Your task to perform on an android device: turn off airplane mode Image 0: 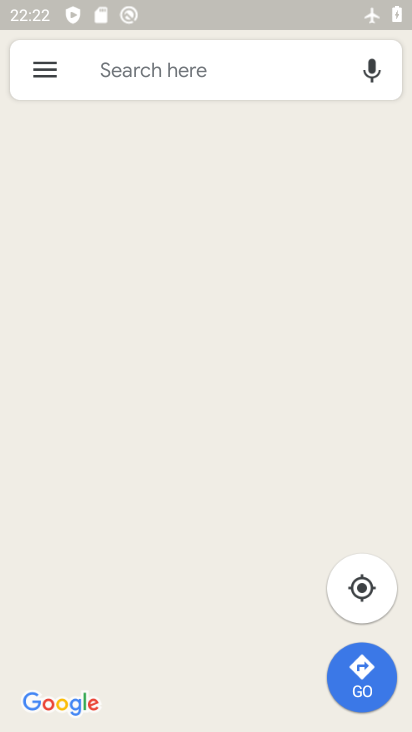
Step 0: press home button
Your task to perform on an android device: turn off airplane mode Image 1: 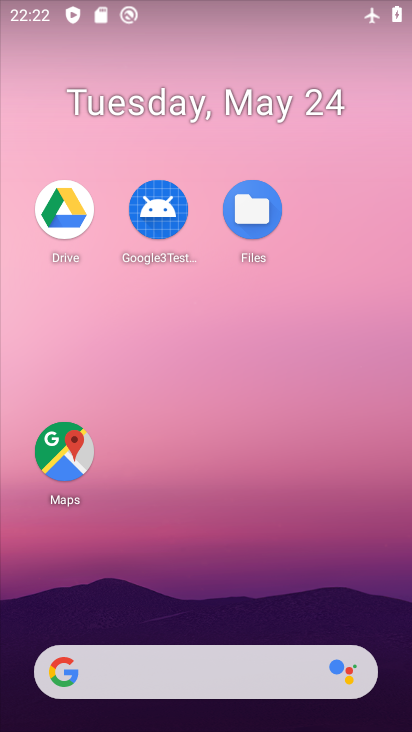
Step 1: drag from (177, 618) to (189, 139)
Your task to perform on an android device: turn off airplane mode Image 2: 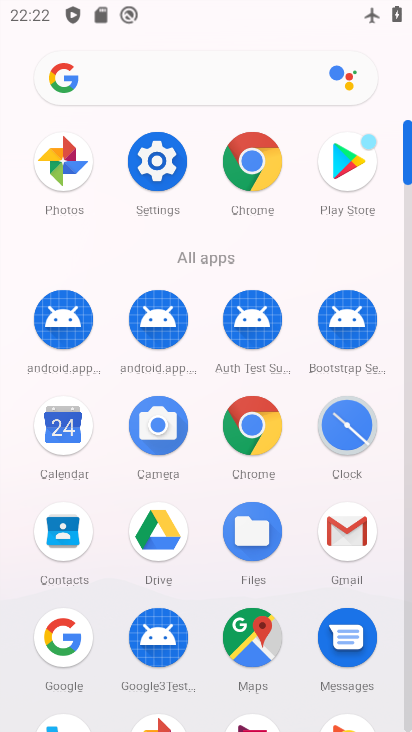
Step 2: click (167, 165)
Your task to perform on an android device: turn off airplane mode Image 3: 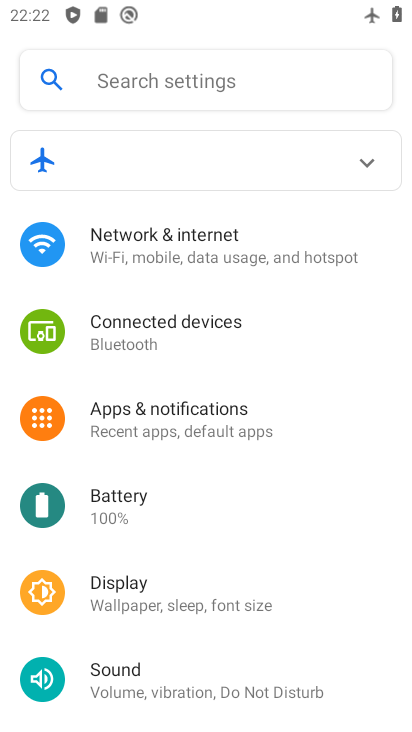
Step 3: click (159, 223)
Your task to perform on an android device: turn off airplane mode Image 4: 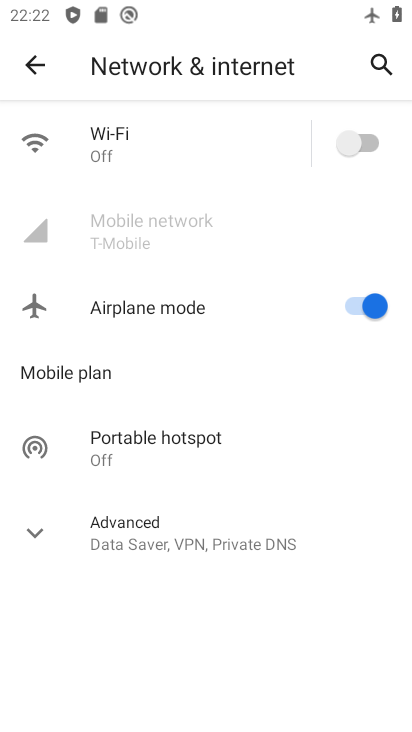
Step 4: click (358, 298)
Your task to perform on an android device: turn off airplane mode Image 5: 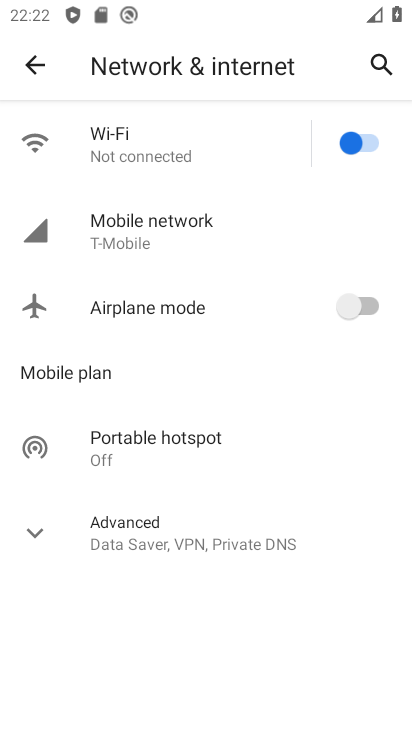
Step 5: task complete